Your task to perform on an android device: Go to calendar. Show me events next week Image 0: 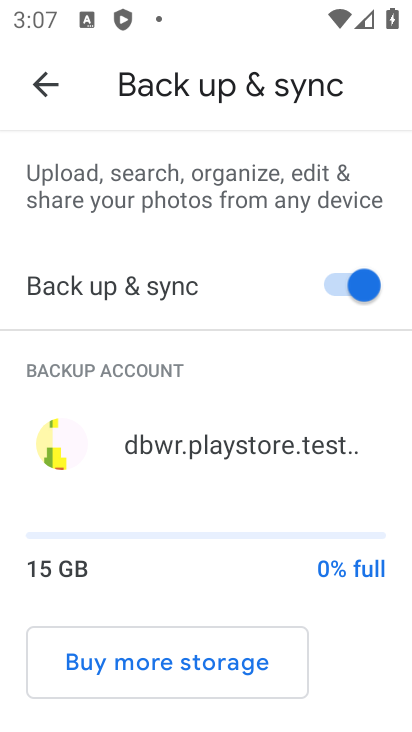
Step 0: press home button
Your task to perform on an android device: Go to calendar. Show me events next week Image 1: 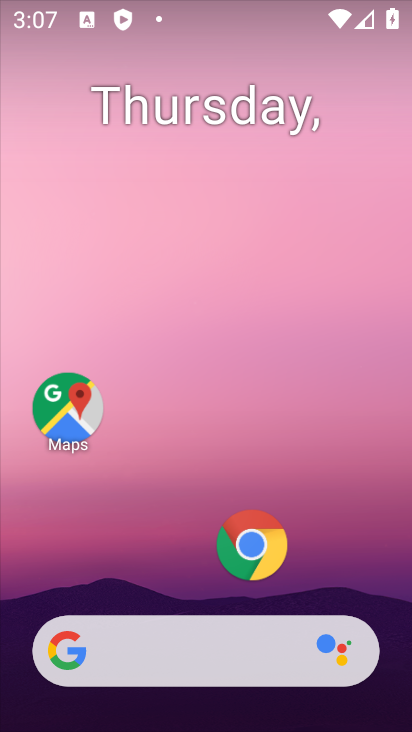
Step 1: drag from (330, 543) to (324, 0)
Your task to perform on an android device: Go to calendar. Show me events next week Image 2: 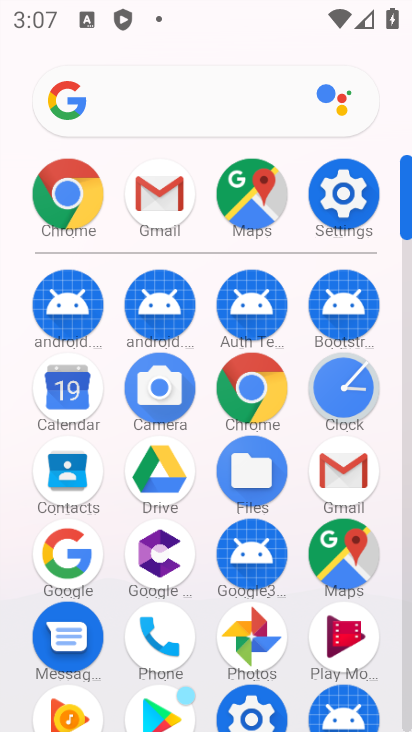
Step 2: click (55, 436)
Your task to perform on an android device: Go to calendar. Show me events next week Image 3: 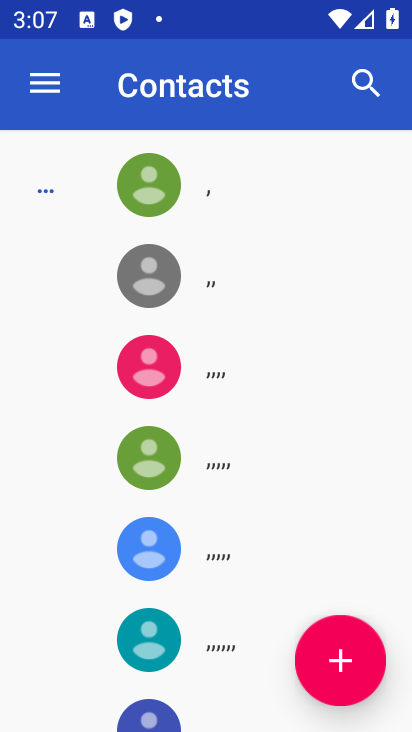
Step 3: press back button
Your task to perform on an android device: Go to calendar. Show me events next week Image 4: 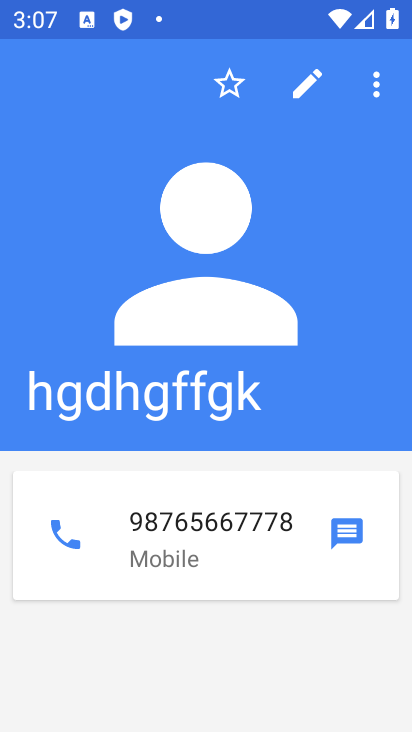
Step 4: press home button
Your task to perform on an android device: Go to calendar. Show me events next week Image 5: 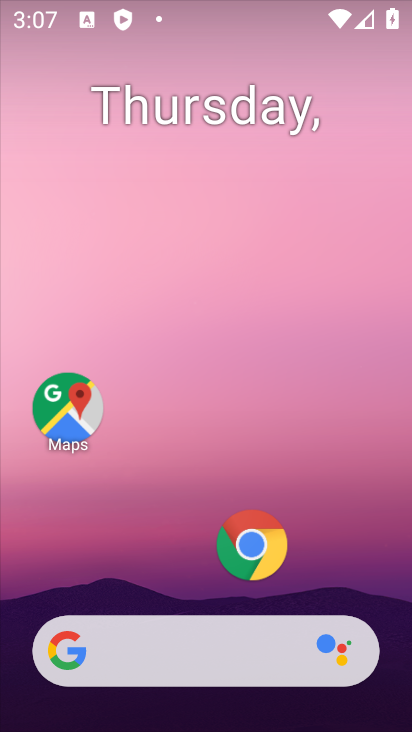
Step 5: drag from (252, 657) to (272, 23)
Your task to perform on an android device: Go to calendar. Show me events next week Image 6: 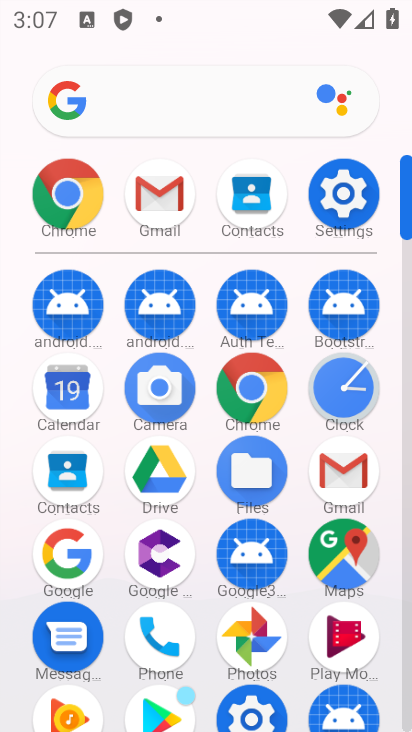
Step 6: click (76, 383)
Your task to perform on an android device: Go to calendar. Show me events next week Image 7: 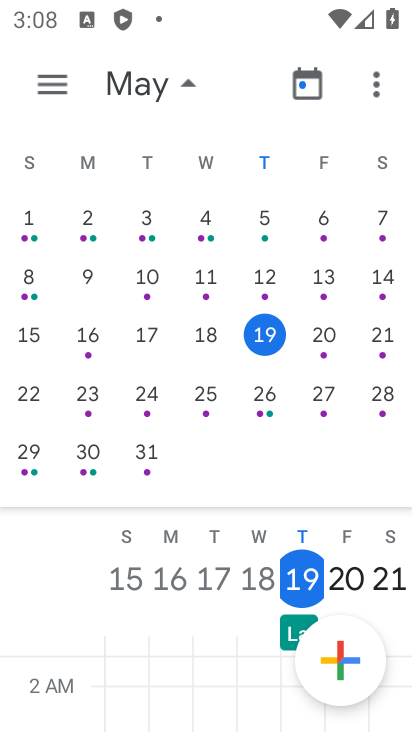
Step 7: click (265, 399)
Your task to perform on an android device: Go to calendar. Show me events next week Image 8: 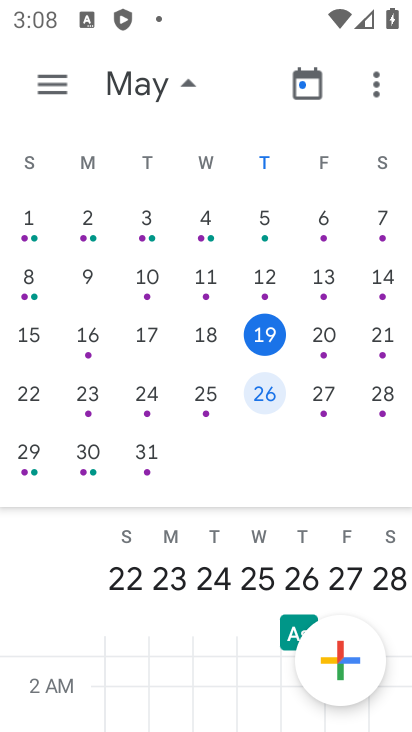
Step 8: click (50, 84)
Your task to perform on an android device: Go to calendar. Show me events next week Image 9: 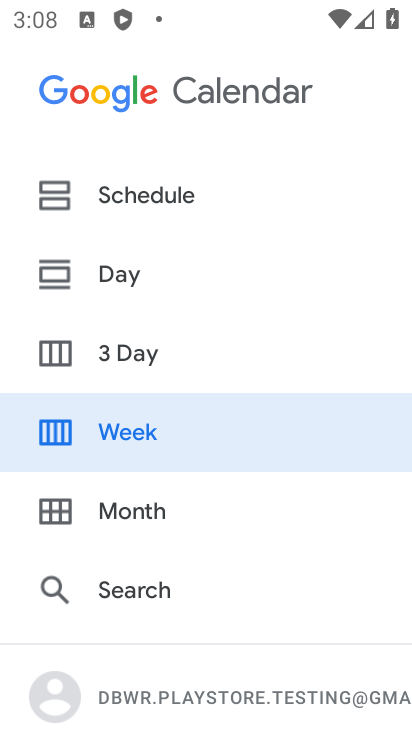
Step 9: task complete